Your task to perform on an android device: see creations saved in the google photos Image 0: 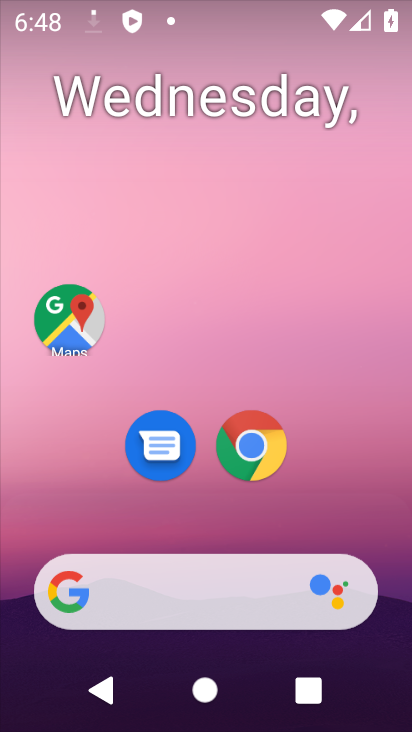
Step 0: click (275, 438)
Your task to perform on an android device: see creations saved in the google photos Image 1: 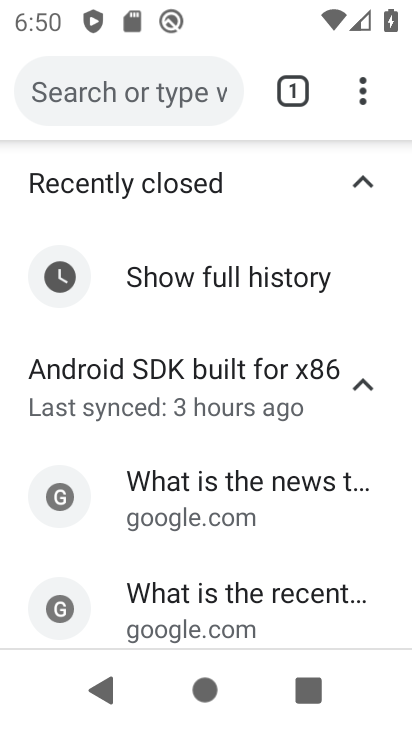
Step 1: press home button
Your task to perform on an android device: see creations saved in the google photos Image 2: 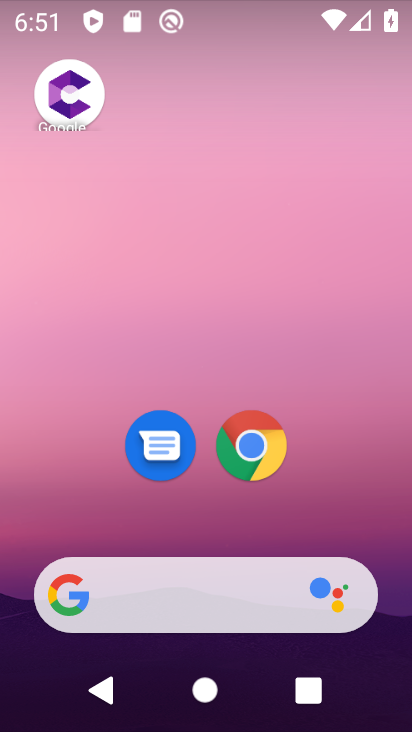
Step 2: drag from (307, 496) to (231, 1)
Your task to perform on an android device: see creations saved in the google photos Image 3: 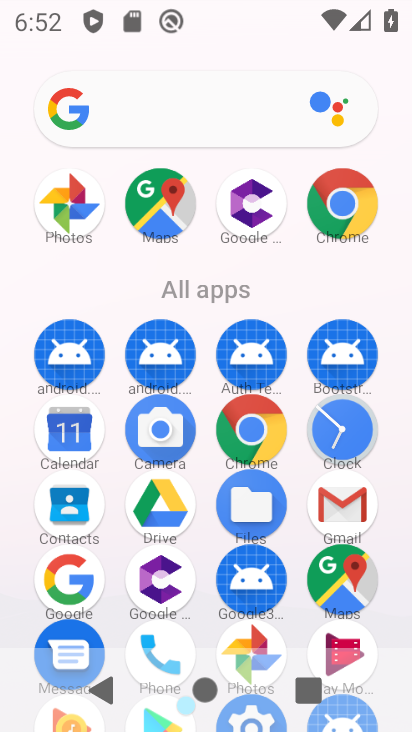
Step 3: drag from (381, 625) to (360, 358)
Your task to perform on an android device: see creations saved in the google photos Image 4: 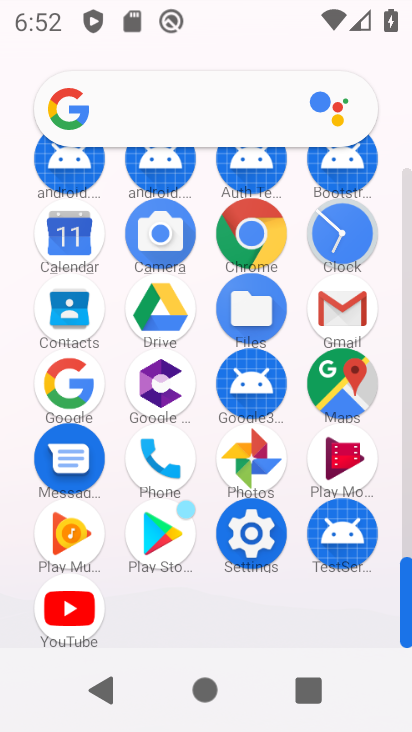
Step 4: click (266, 472)
Your task to perform on an android device: see creations saved in the google photos Image 5: 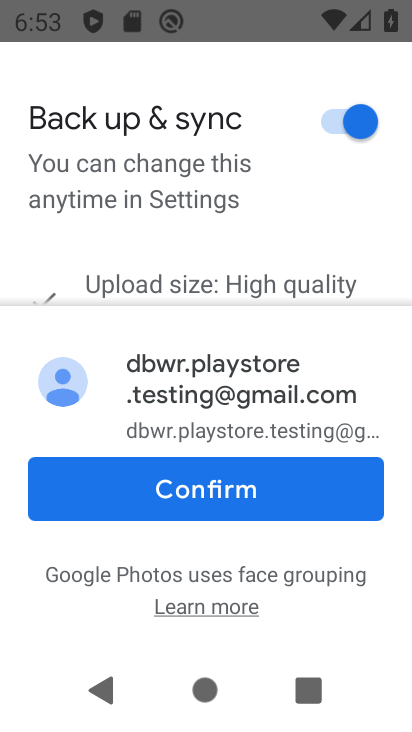
Step 5: click (153, 492)
Your task to perform on an android device: see creations saved in the google photos Image 6: 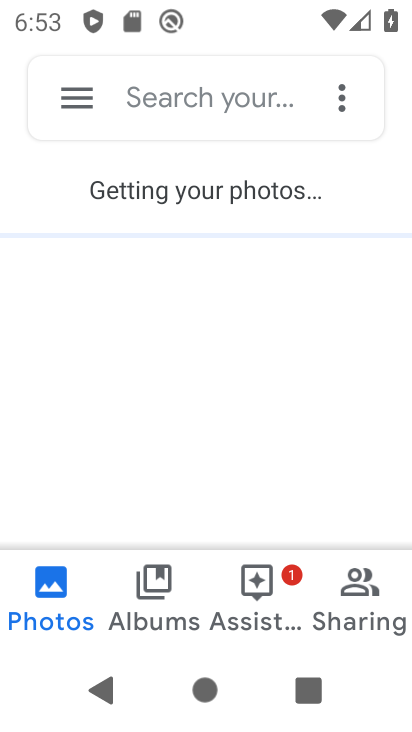
Step 6: click (208, 88)
Your task to perform on an android device: see creations saved in the google photos Image 7: 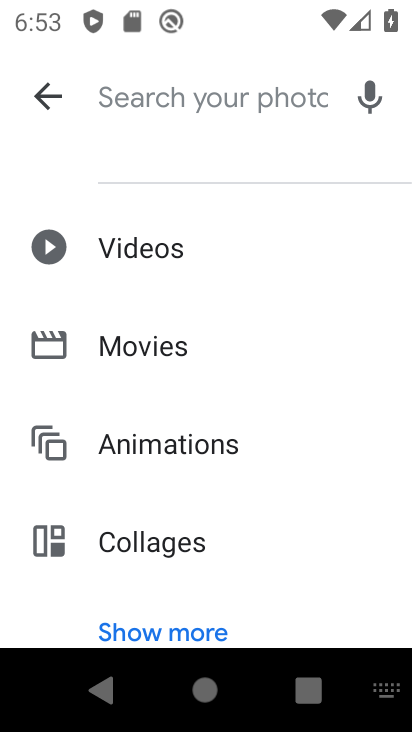
Step 7: drag from (197, 508) to (206, 198)
Your task to perform on an android device: see creations saved in the google photos Image 8: 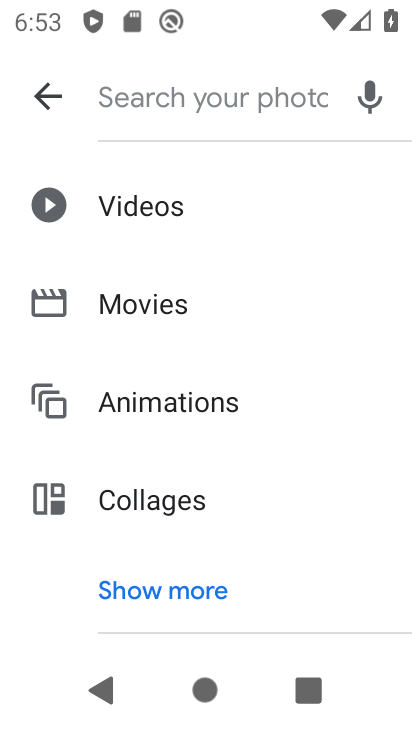
Step 8: click (184, 594)
Your task to perform on an android device: see creations saved in the google photos Image 9: 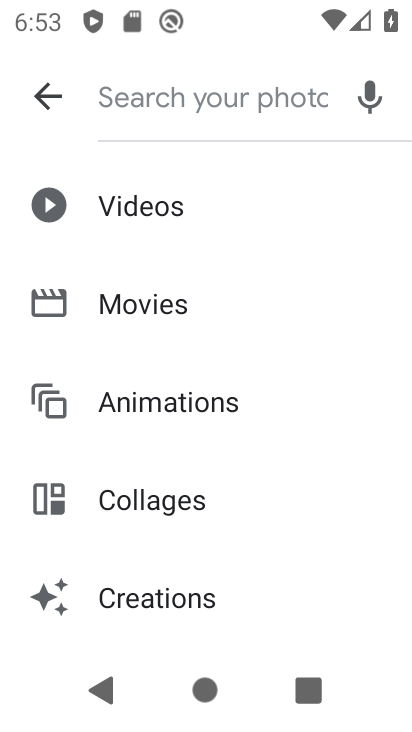
Step 9: drag from (201, 571) to (219, 399)
Your task to perform on an android device: see creations saved in the google photos Image 10: 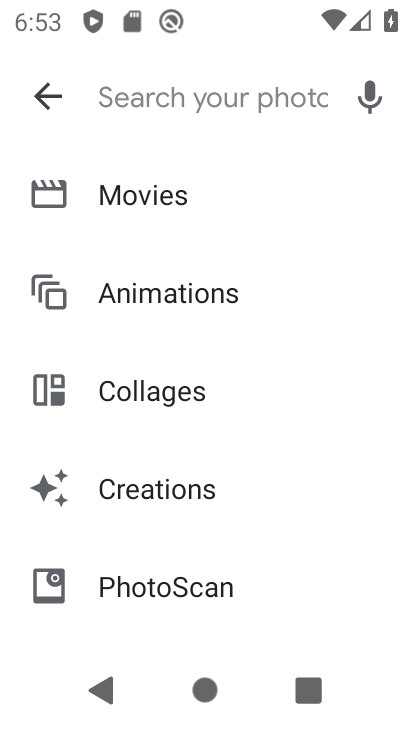
Step 10: click (192, 491)
Your task to perform on an android device: see creations saved in the google photos Image 11: 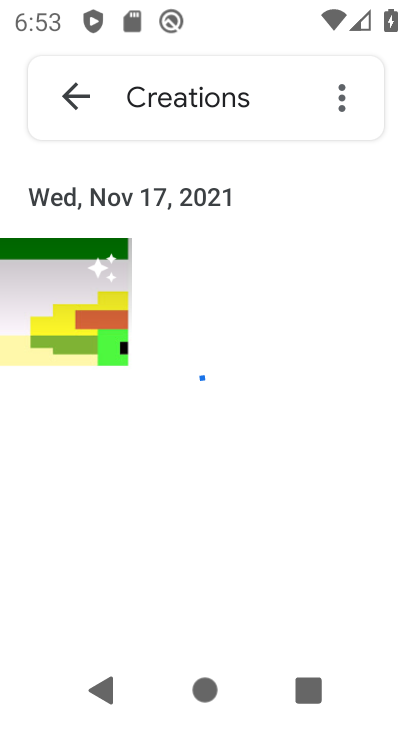
Step 11: task complete